Your task to perform on an android device: Search for Mexican restaurants on Maps Image 0: 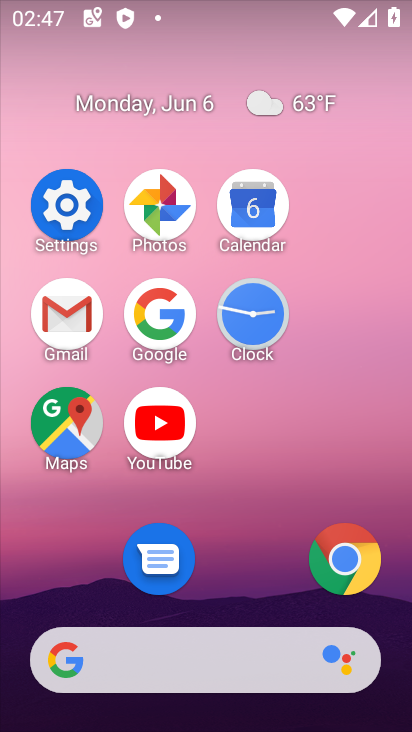
Step 0: click (73, 403)
Your task to perform on an android device: Search for Mexican restaurants on Maps Image 1: 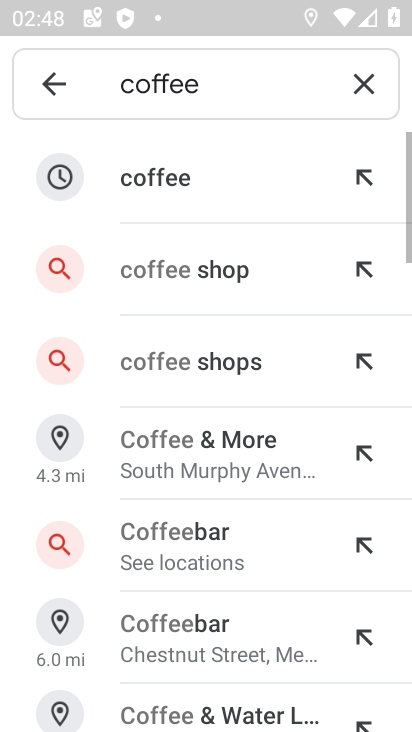
Step 1: click (373, 72)
Your task to perform on an android device: Search for Mexican restaurants on Maps Image 2: 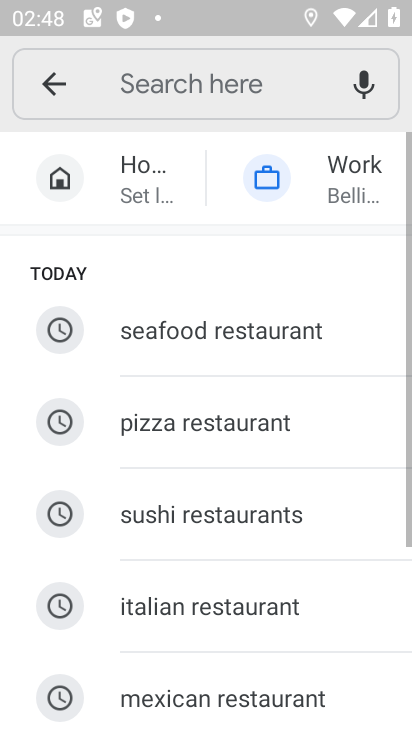
Step 2: click (199, 93)
Your task to perform on an android device: Search for Mexican restaurants on Maps Image 3: 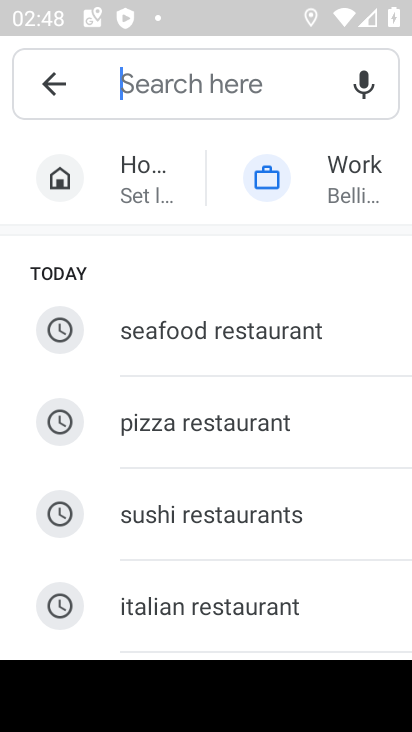
Step 3: drag from (252, 463) to (217, 89)
Your task to perform on an android device: Search for Mexican restaurants on Maps Image 4: 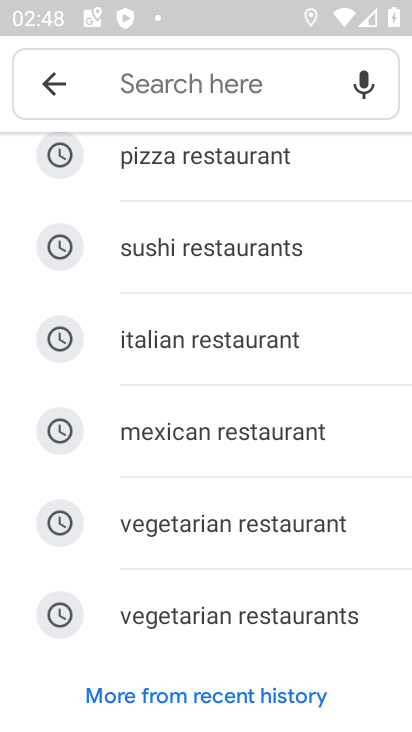
Step 4: click (252, 426)
Your task to perform on an android device: Search for Mexican restaurants on Maps Image 5: 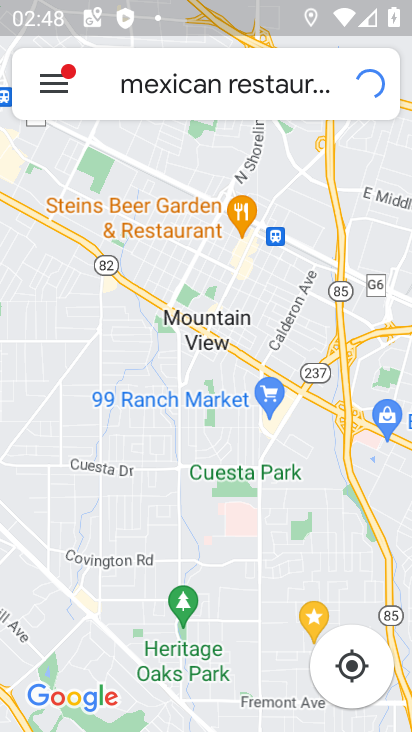
Step 5: task complete